Your task to perform on an android device: turn smart compose on in the gmail app Image 0: 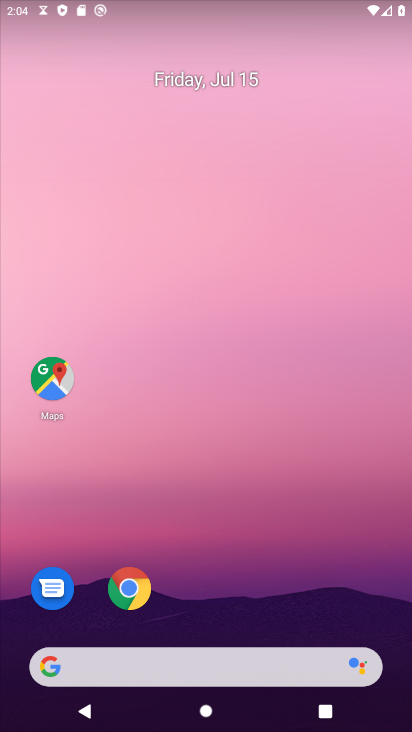
Step 0: drag from (204, 673) to (322, 265)
Your task to perform on an android device: turn smart compose on in the gmail app Image 1: 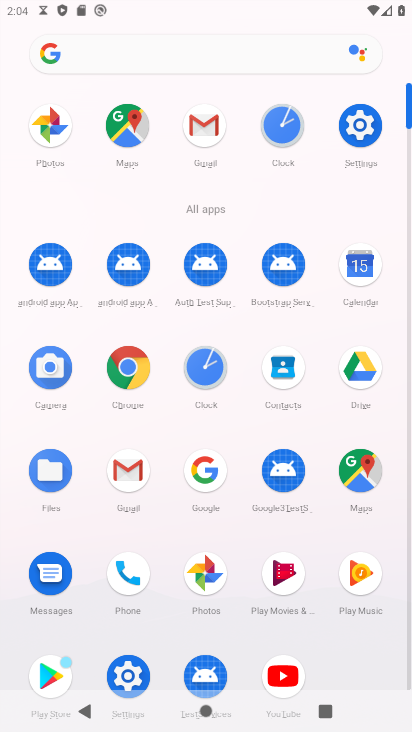
Step 1: click (129, 474)
Your task to perform on an android device: turn smart compose on in the gmail app Image 2: 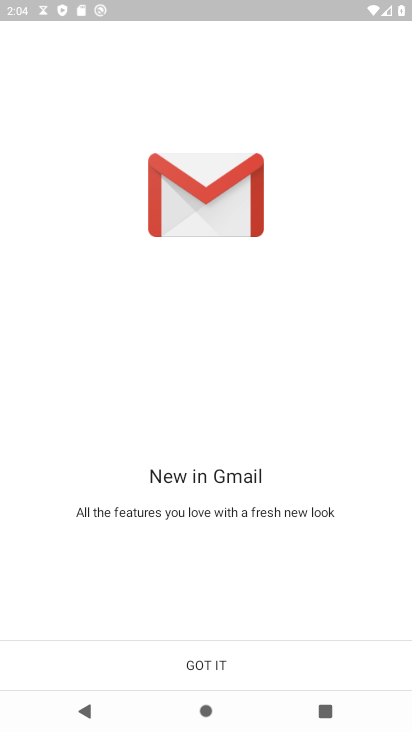
Step 2: click (203, 667)
Your task to perform on an android device: turn smart compose on in the gmail app Image 3: 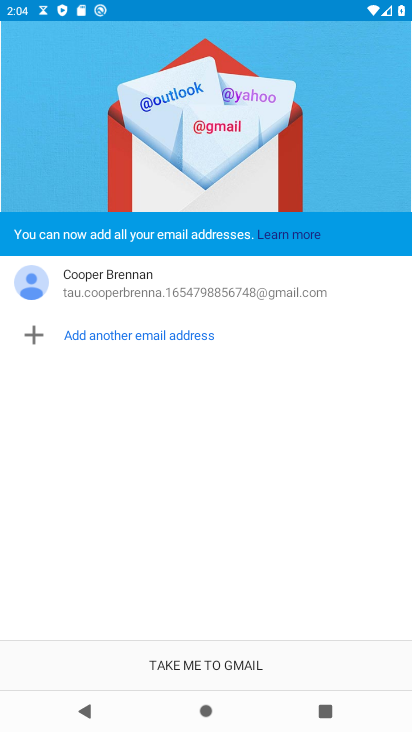
Step 3: click (203, 667)
Your task to perform on an android device: turn smart compose on in the gmail app Image 4: 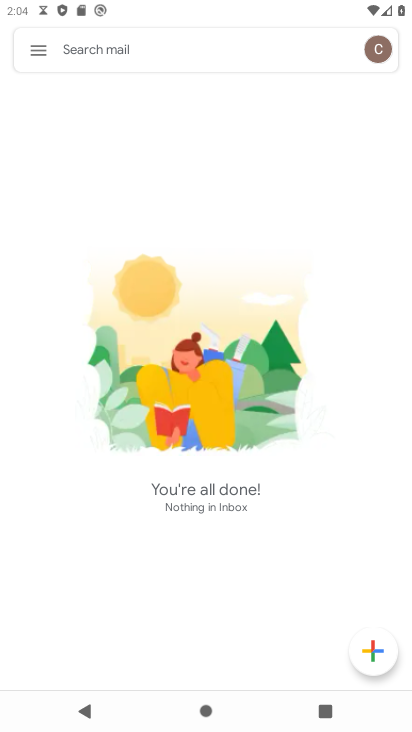
Step 4: click (46, 46)
Your task to perform on an android device: turn smart compose on in the gmail app Image 5: 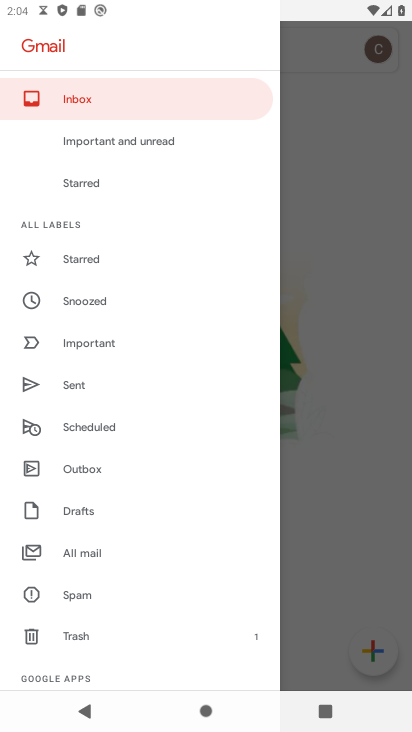
Step 5: drag from (194, 613) to (261, 351)
Your task to perform on an android device: turn smart compose on in the gmail app Image 6: 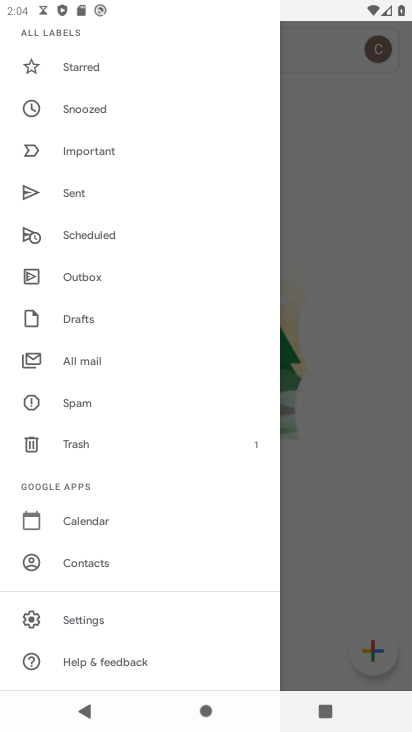
Step 6: click (96, 622)
Your task to perform on an android device: turn smart compose on in the gmail app Image 7: 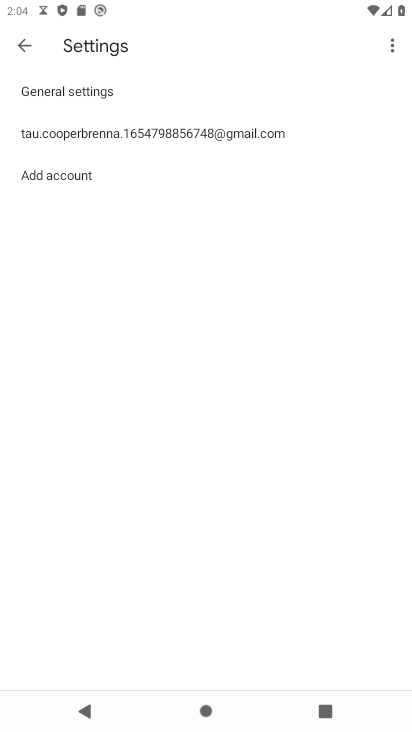
Step 7: click (237, 134)
Your task to perform on an android device: turn smart compose on in the gmail app Image 8: 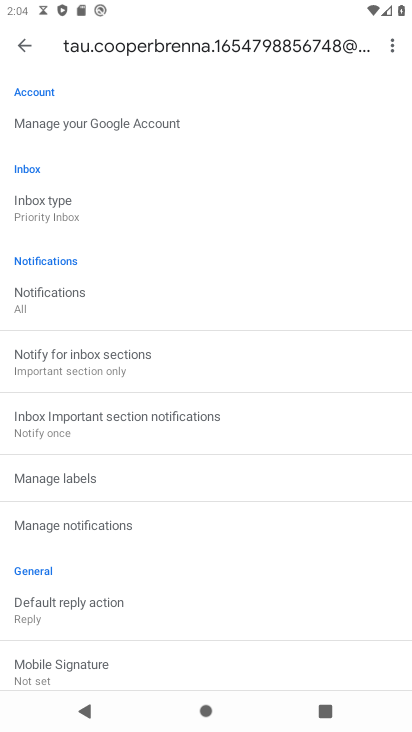
Step 8: task complete